Your task to perform on an android device: change alarm snooze length Image 0: 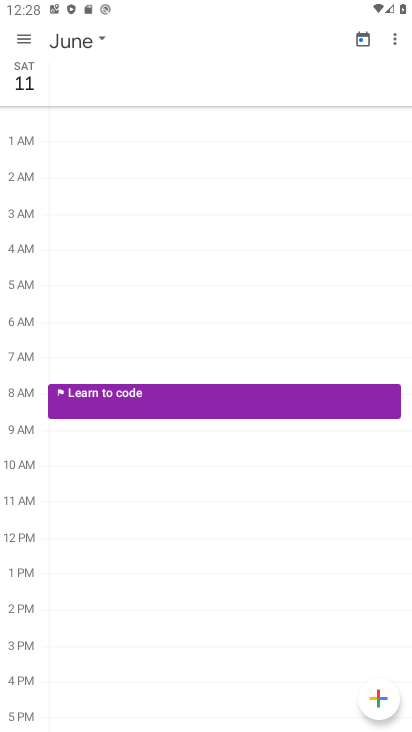
Step 0: press home button
Your task to perform on an android device: change alarm snooze length Image 1: 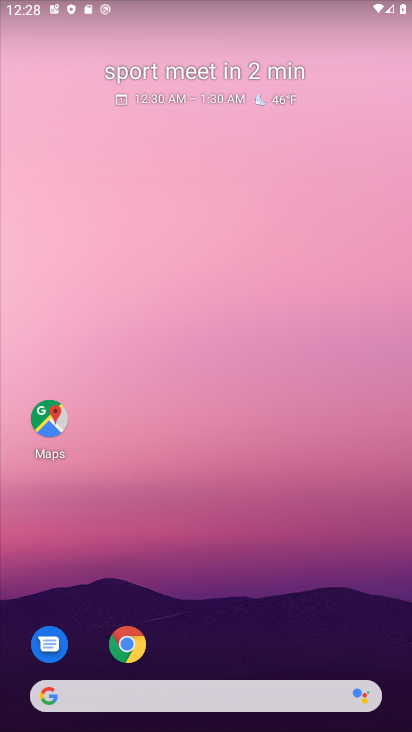
Step 1: drag from (11, 538) to (134, 112)
Your task to perform on an android device: change alarm snooze length Image 2: 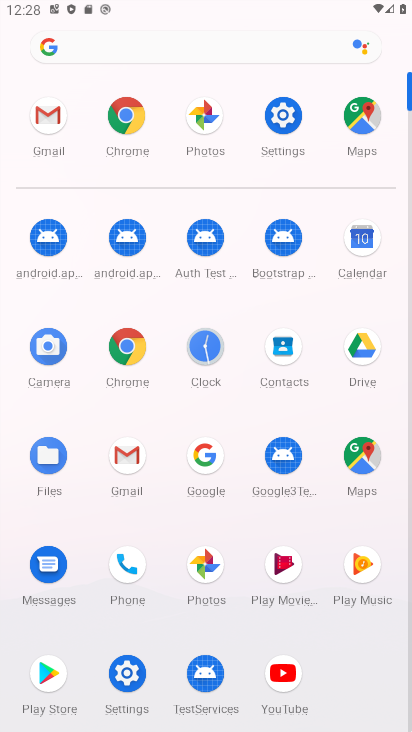
Step 2: click (190, 359)
Your task to perform on an android device: change alarm snooze length Image 3: 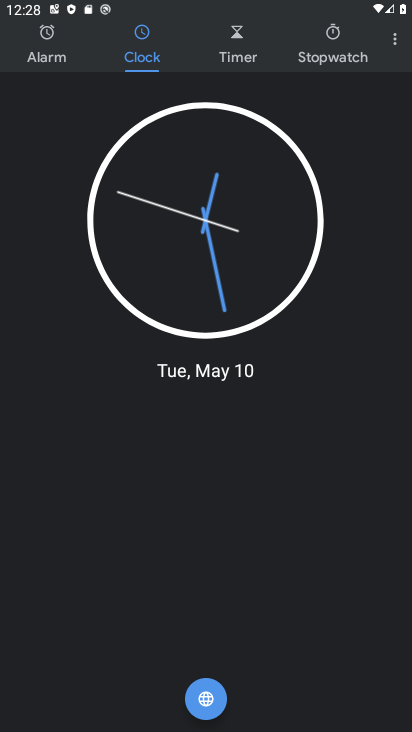
Step 3: click (392, 50)
Your task to perform on an android device: change alarm snooze length Image 4: 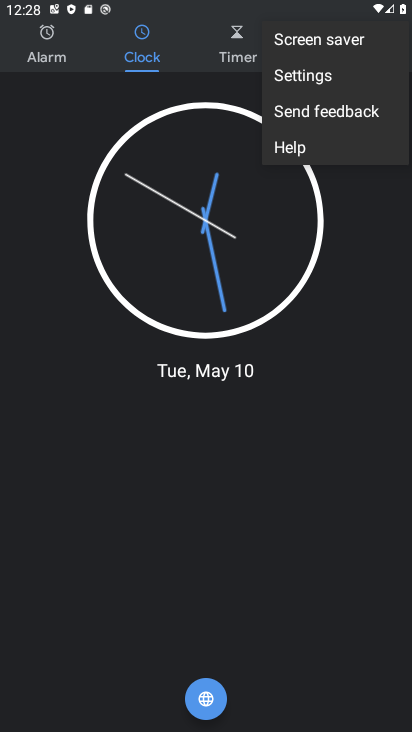
Step 4: click (363, 78)
Your task to perform on an android device: change alarm snooze length Image 5: 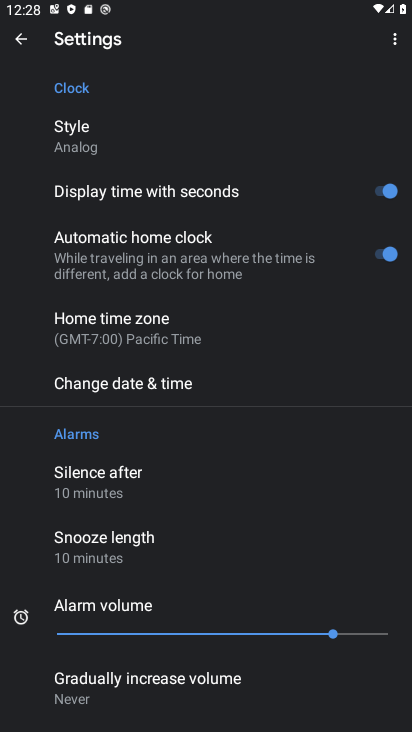
Step 5: click (92, 538)
Your task to perform on an android device: change alarm snooze length Image 6: 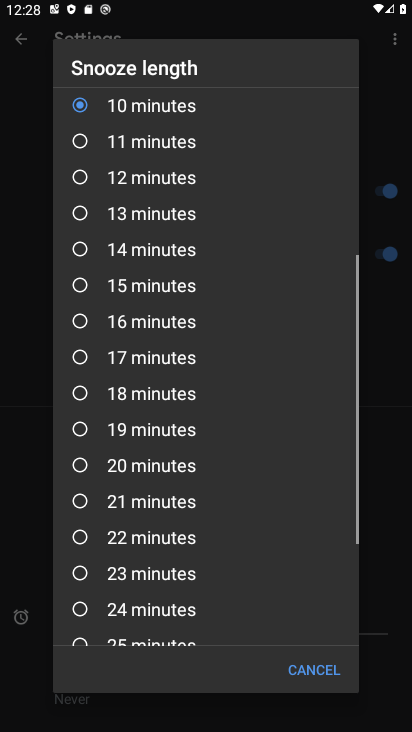
Step 6: click (103, 142)
Your task to perform on an android device: change alarm snooze length Image 7: 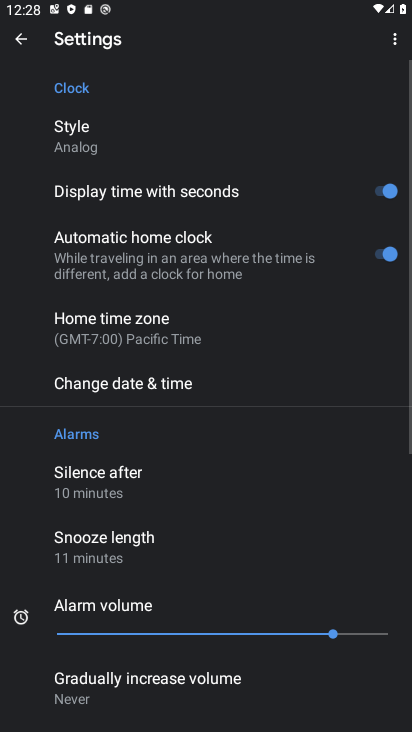
Step 7: task complete